Your task to perform on an android device: Open display settings Image 0: 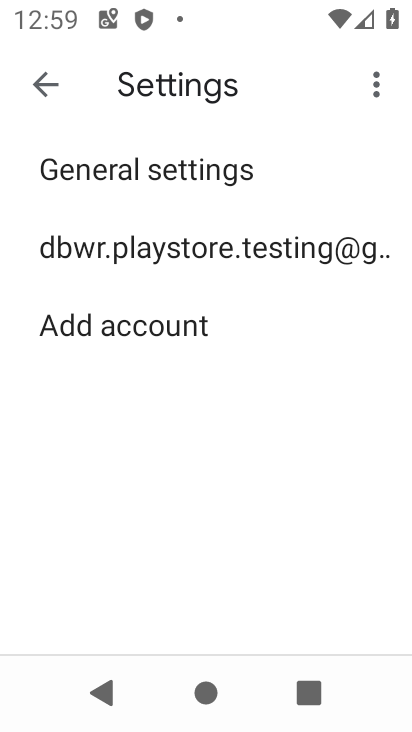
Step 0: press home button
Your task to perform on an android device: Open display settings Image 1: 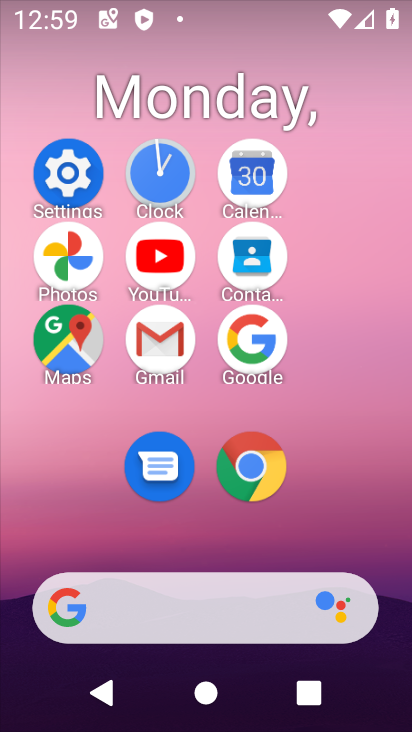
Step 1: click (65, 170)
Your task to perform on an android device: Open display settings Image 2: 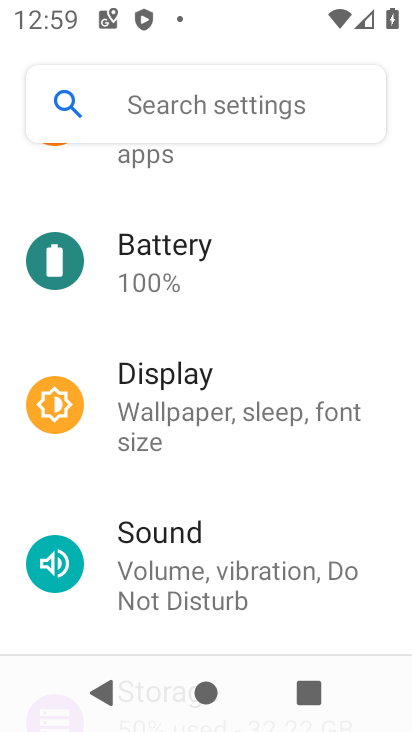
Step 2: click (210, 442)
Your task to perform on an android device: Open display settings Image 3: 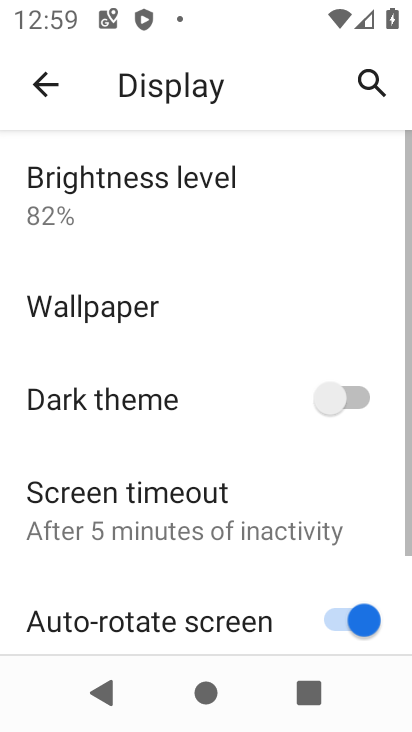
Step 3: task complete